Your task to perform on an android device: open the mobile data screen to see how much data has been used Image 0: 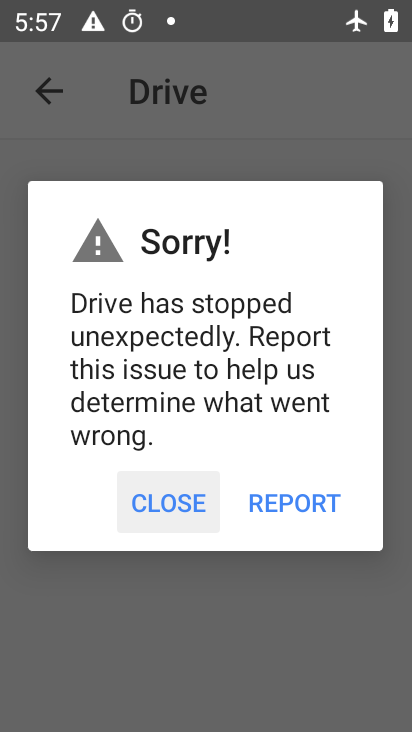
Step 0: press home button
Your task to perform on an android device: open the mobile data screen to see how much data has been used Image 1: 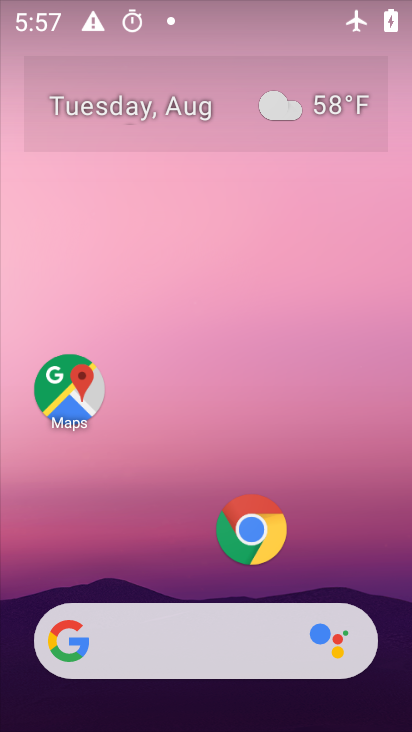
Step 1: drag from (177, 564) to (171, 227)
Your task to perform on an android device: open the mobile data screen to see how much data has been used Image 2: 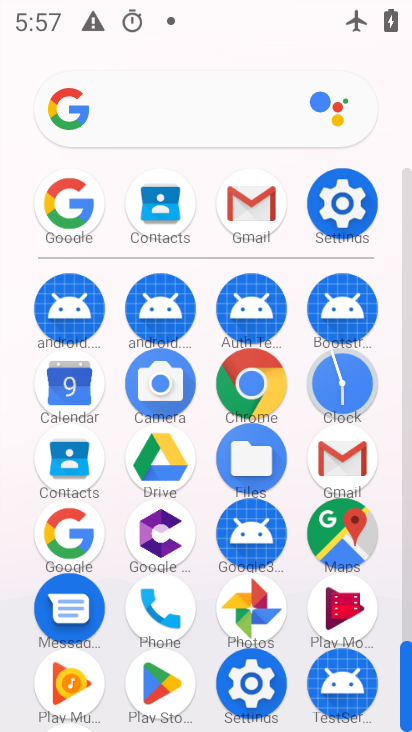
Step 2: click (333, 229)
Your task to perform on an android device: open the mobile data screen to see how much data has been used Image 3: 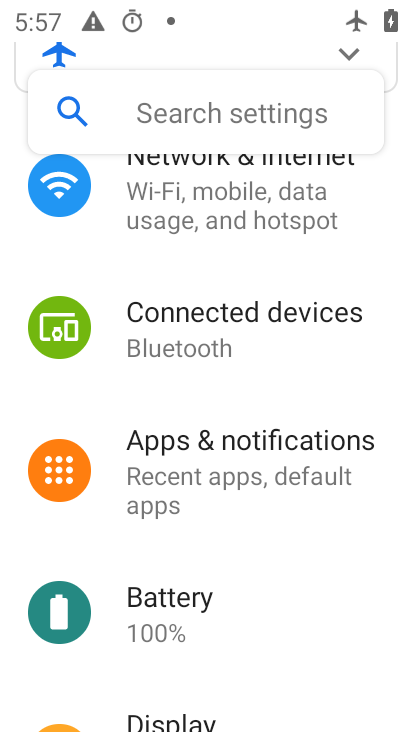
Step 3: drag from (216, 215) to (235, 599)
Your task to perform on an android device: open the mobile data screen to see how much data has been used Image 4: 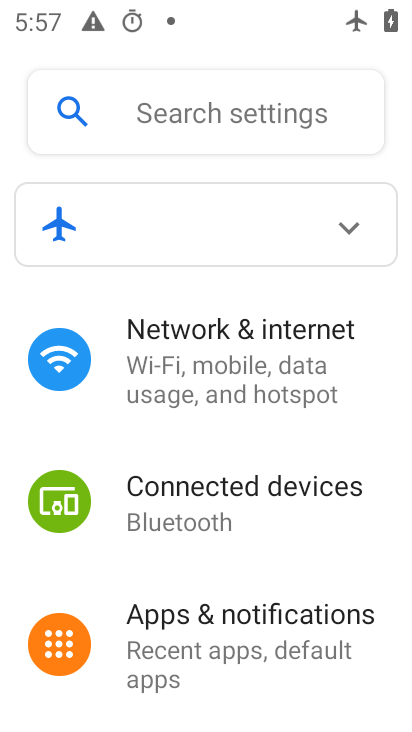
Step 4: click (233, 360)
Your task to perform on an android device: open the mobile data screen to see how much data has been used Image 5: 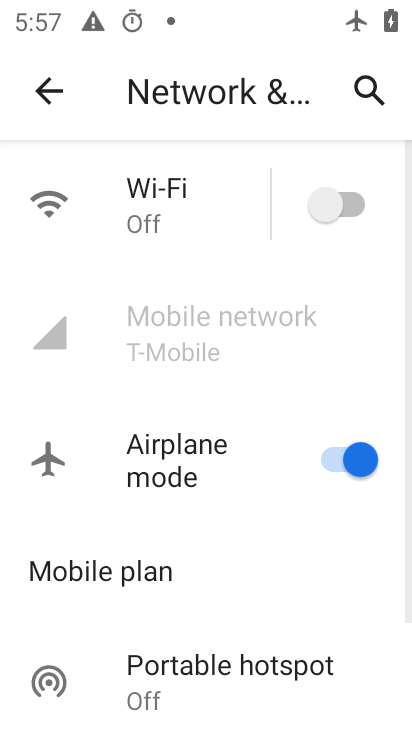
Step 5: click (199, 333)
Your task to perform on an android device: open the mobile data screen to see how much data has been used Image 6: 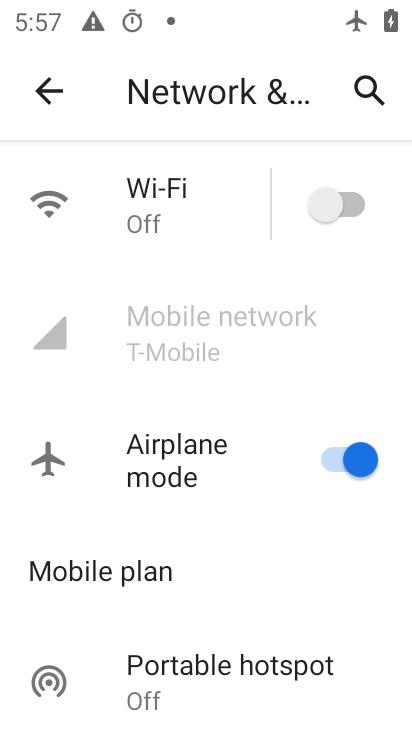
Step 6: task complete